Your task to perform on an android device: Open the stopwatch Image 0: 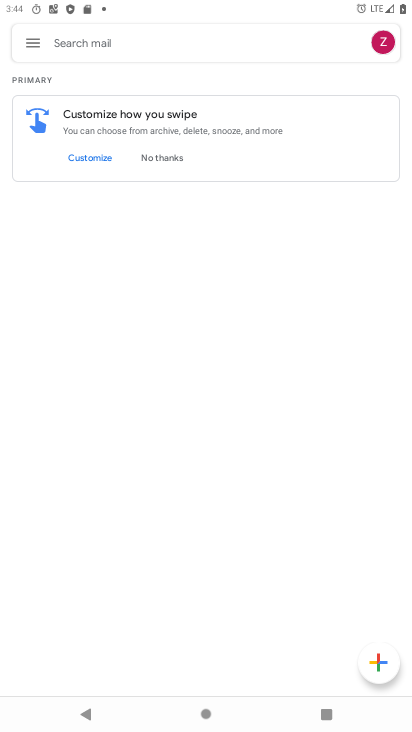
Step 0: press home button
Your task to perform on an android device: Open the stopwatch Image 1: 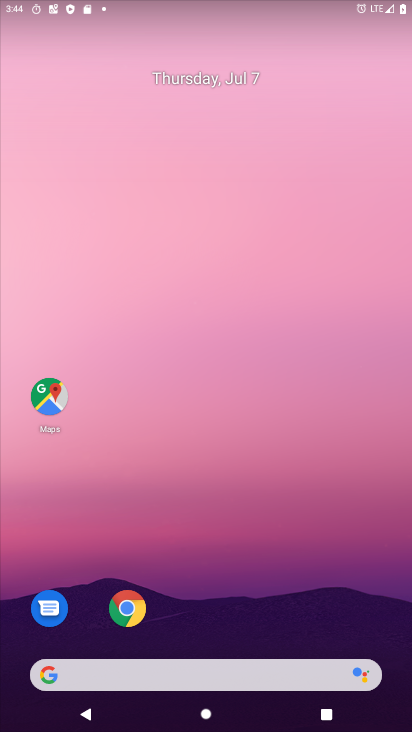
Step 1: drag from (234, 729) to (209, 160)
Your task to perform on an android device: Open the stopwatch Image 2: 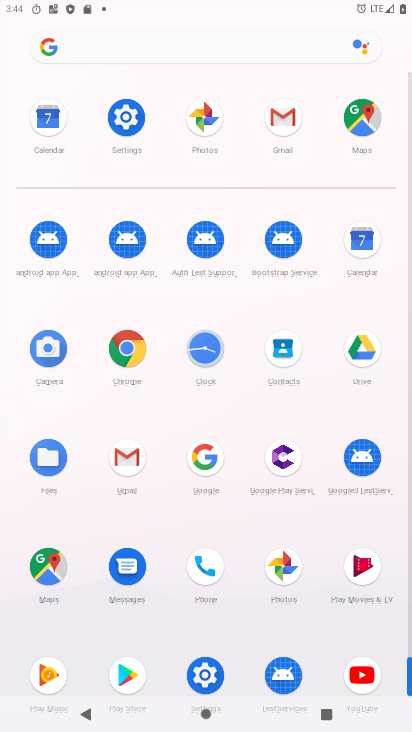
Step 2: click (200, 345)
Your task to perform on an android device: Open the stopwatch Image 3: 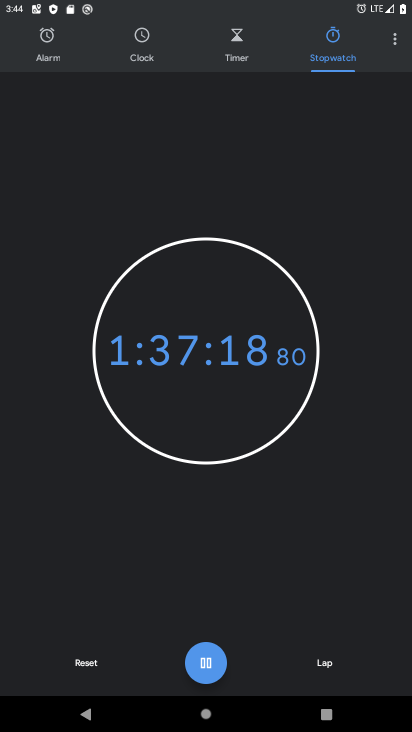
Step 3: task complete